Your task to perform on an android device: change the upload size in google photos Image 0: 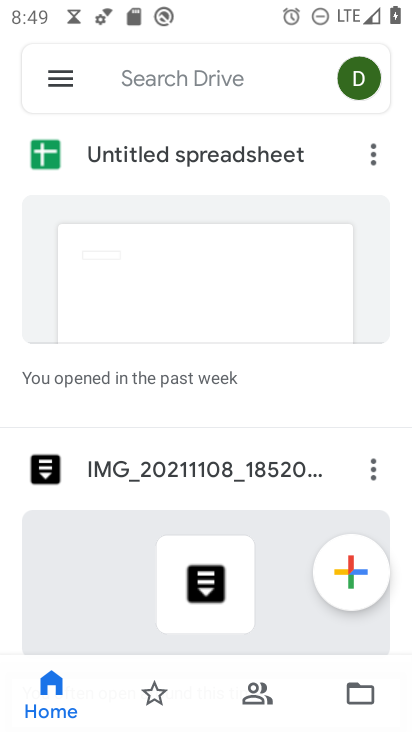
Step 0: press home button
Your task to perform on an android device: change the upload size in google photos Image 1: 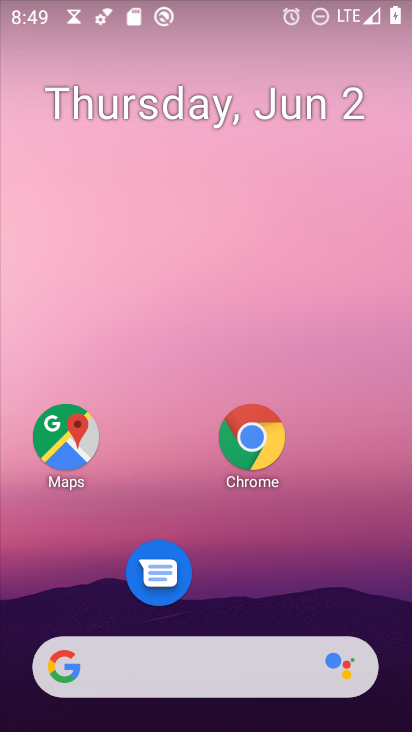
Step 1: drag from (175, 668) to (284, 175)
Your task to perform on an android device: change the upload size in google photos Image 2: 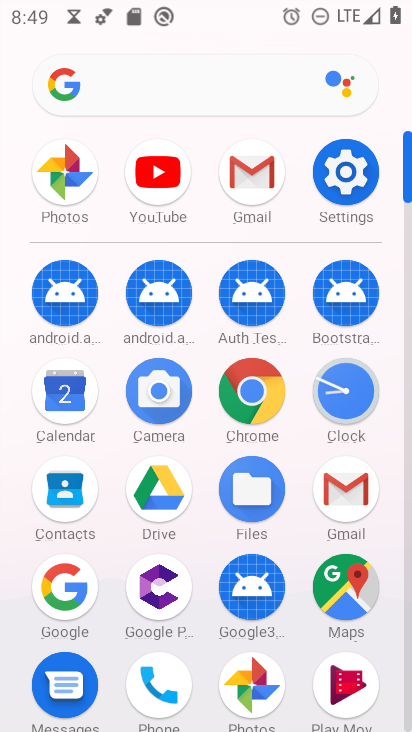
Step 2: click (248, 676)
Your task to perform on an android device: change the upload size in google photos Image 3: 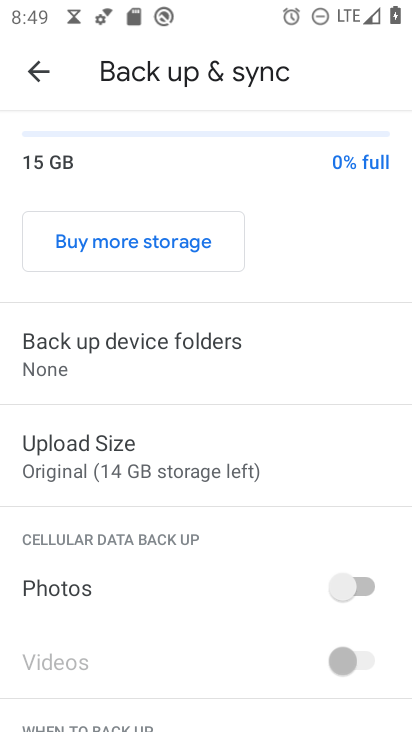
Step 3: click (75, 460)
Your task to perform on an android device: change the upload size in google photos Image 4: 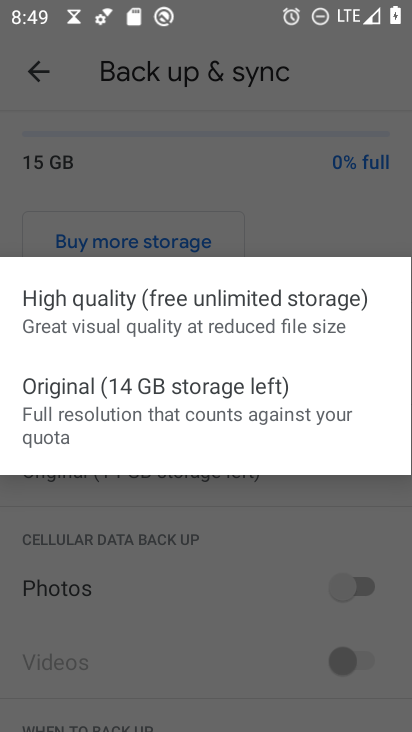
Step 4: click (111, 320)
Your task to perform on an android device: change the upload size in google photos Image 5: 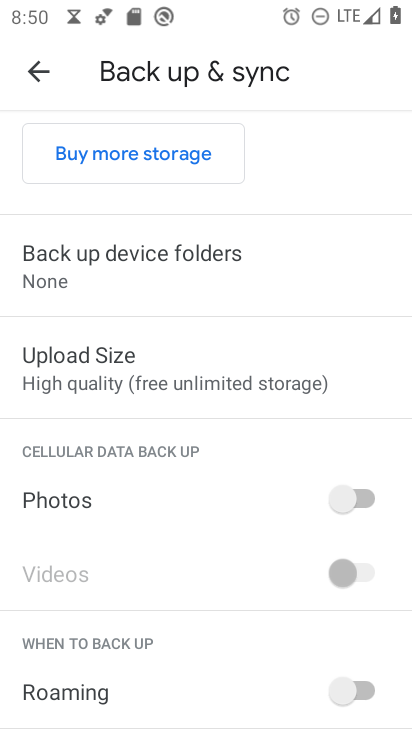
Step 5: task complete